Your task to perform on an android device: When is my next appointment? Image 0: 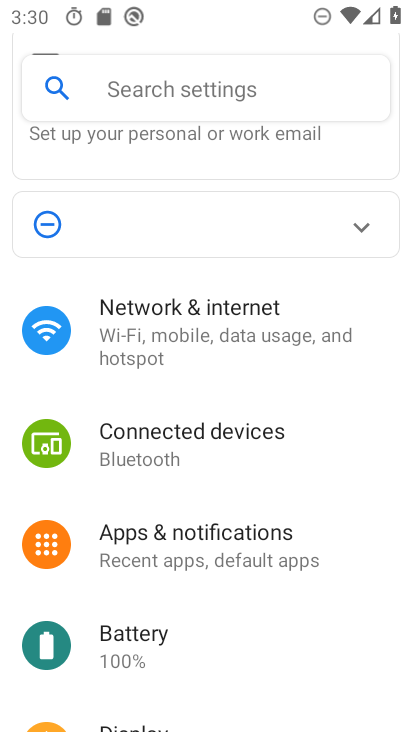
Step 0: press home button
Your task to perform on an android device: When is my next appointment? Image 1: 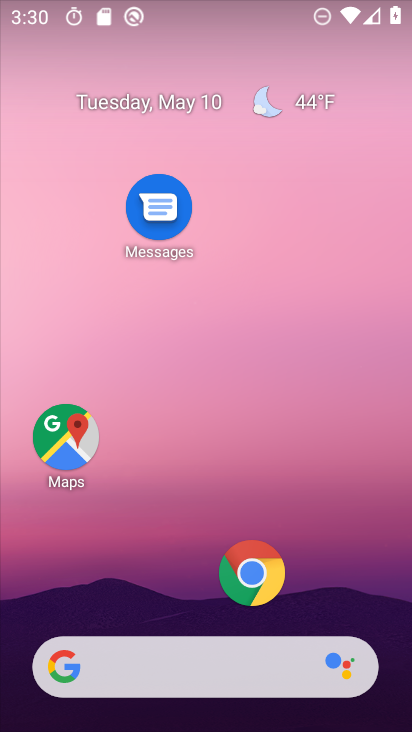
Step 1: drag from (189, 598) to (220, 222)
Your task to perform on an android device: When is my next appointment? Image 2: 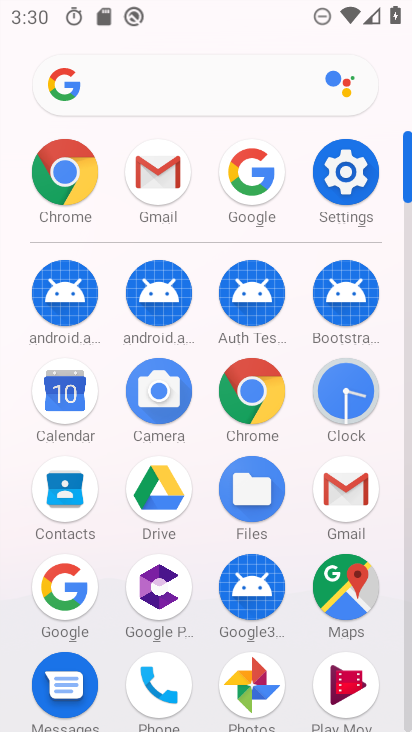
Step 2: click (64, 392)
Your task to perform on an android device: When is my next appointment? Image 3: 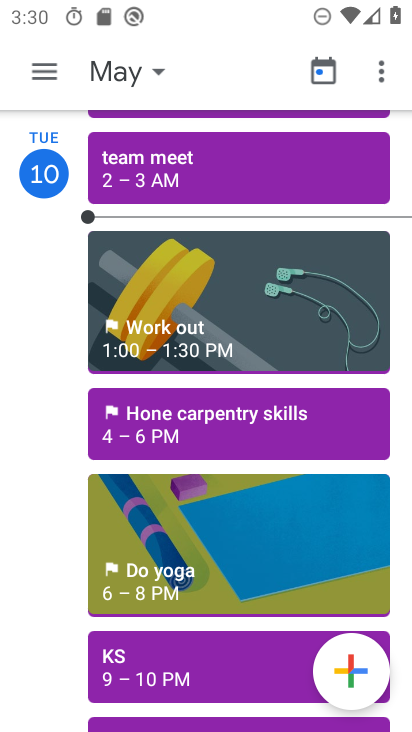
Step 3: click (160, 80)
Your task to perform on an android device: When is my next appointment? Image 4: 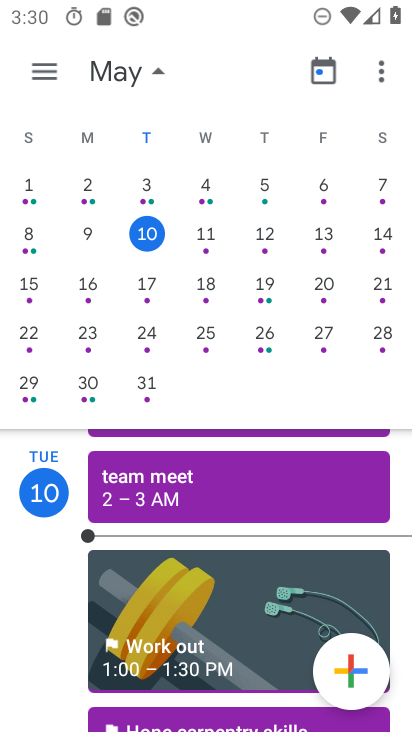
Step 4: task complete